Your task to perform on an android device: turn on bluetooth scan Image 0: 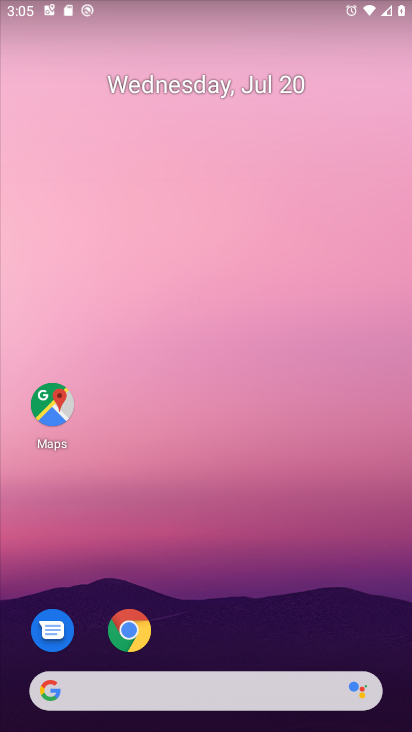
Step 0: drag from (239, 687) to (239, 224)
Your task to perform on an android device: turn on bluetooth scan Image 1: 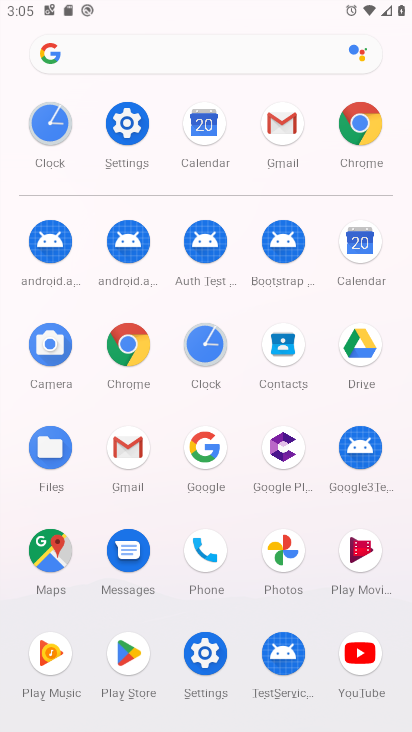
Step 1: click (123, 156)
Your task to perform on an android device: turn on bluetooth scan Image 2: 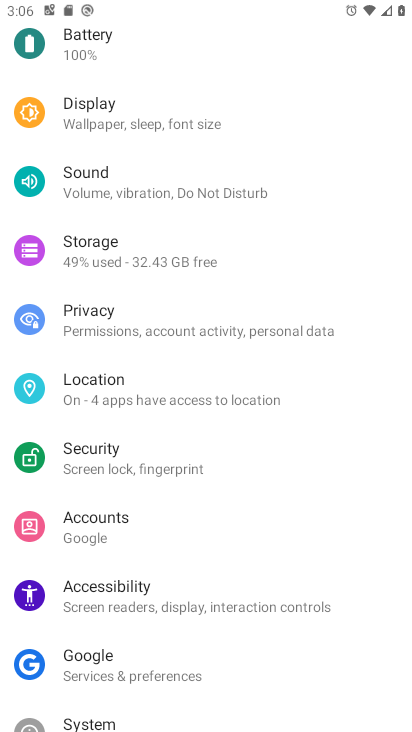
Step 2: drag from (123, 156) to (194, 722)
Your task to perform on an android device: turn on bluetooth scan Image 3: 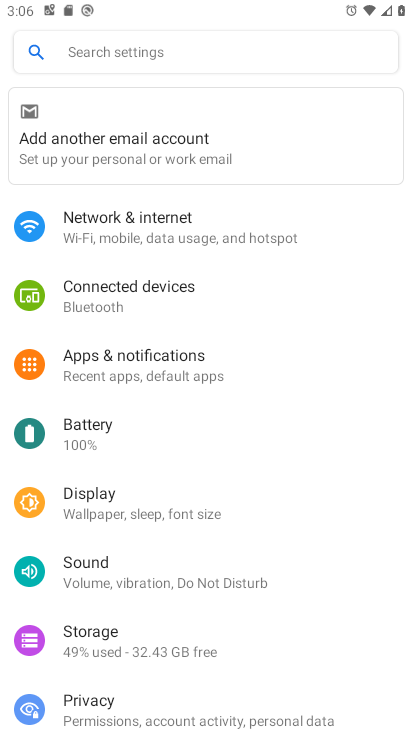
Step 3: click (187, 290)
Your task to perform on an android device: turn on bluetooth scan Image 4: 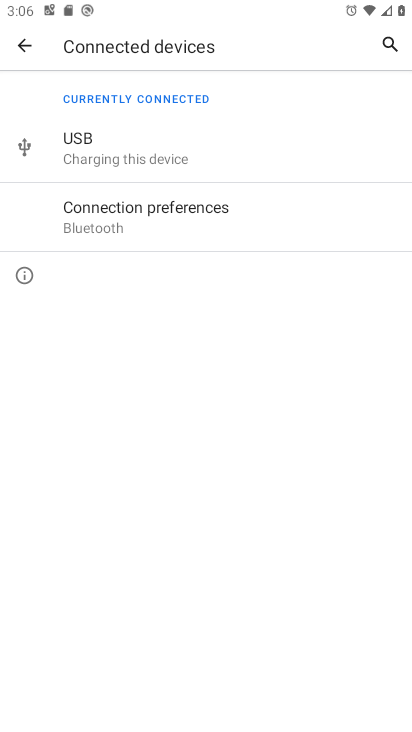
Step 4: click (161, 226)
Your task to perform on an android device: turn on bluetooth scan Image 5: 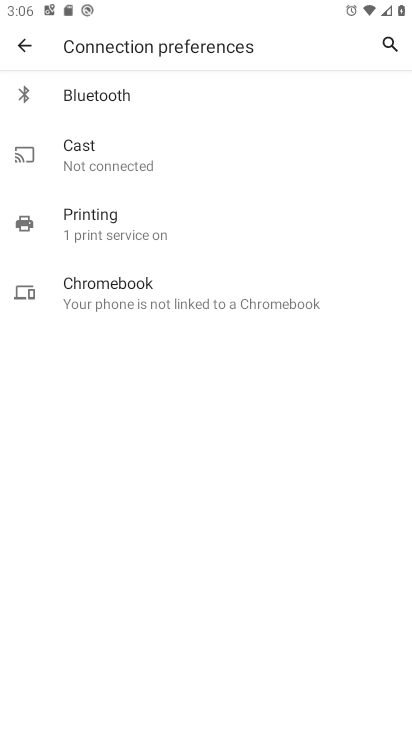
Step 5: click (115, 110)
Your task to perform on an android device: turn on bluetooth scan Image 6: 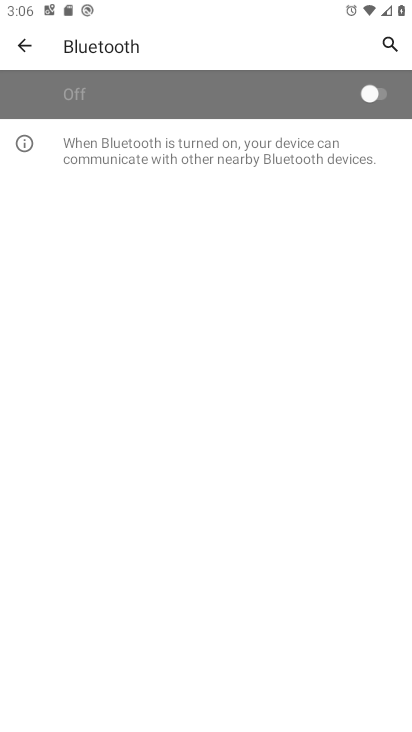
Step 6: click (371, 101)
Your task to perform on an android device: turn on bluetooth scan Image 7: 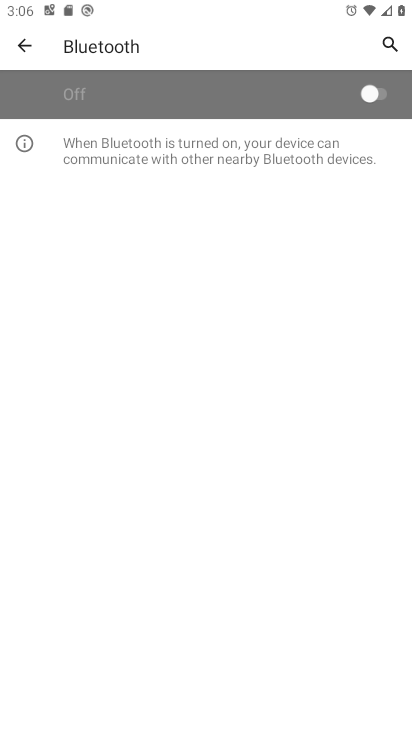
Step 7: task complete